Your task to perform on an android device: Go to internet settings Image 0: 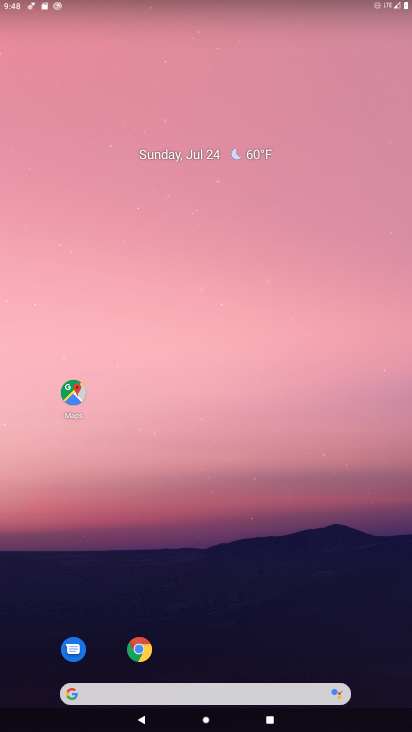
Step 0: drag from (343, 625) to (270, 75)
Your task to perform on an android device: Go to internet settings Image 1: 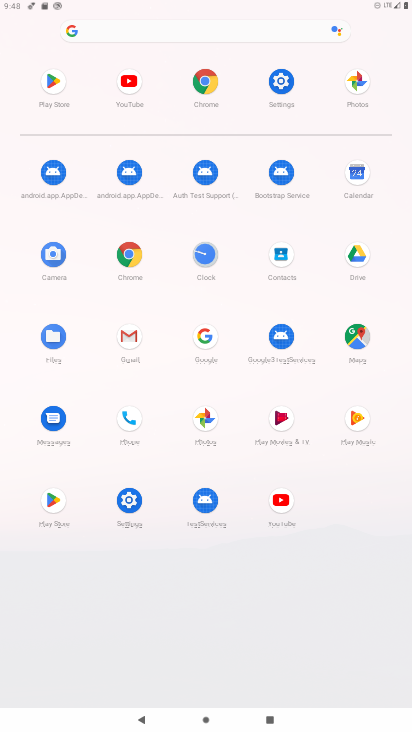
Step 1: click (288, 86)
Your task to perform on an android device: Go to internet settings Image 2: 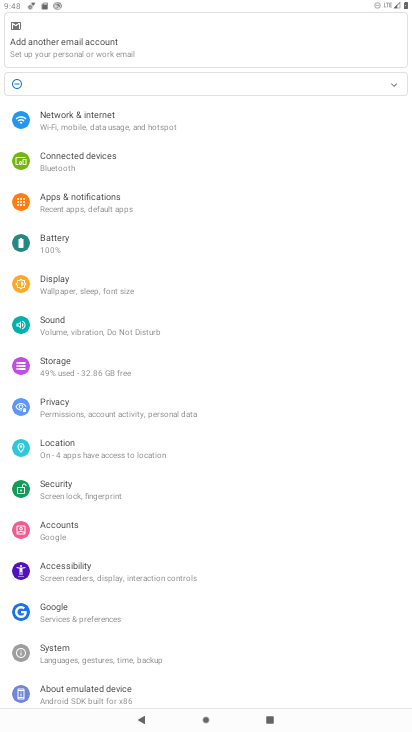
Step 2: click (69, 123)
Your task to perform on an android device: Go to internet settings Image 3: 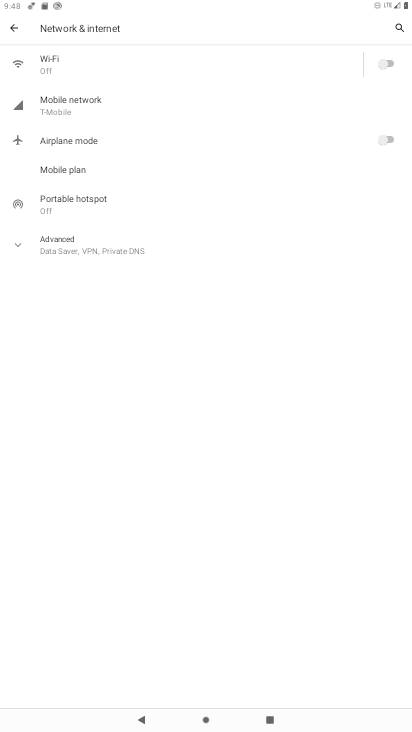
Step 3: click (107, 242)
Your task to perform on an android device: Go to internet settings Image 4: 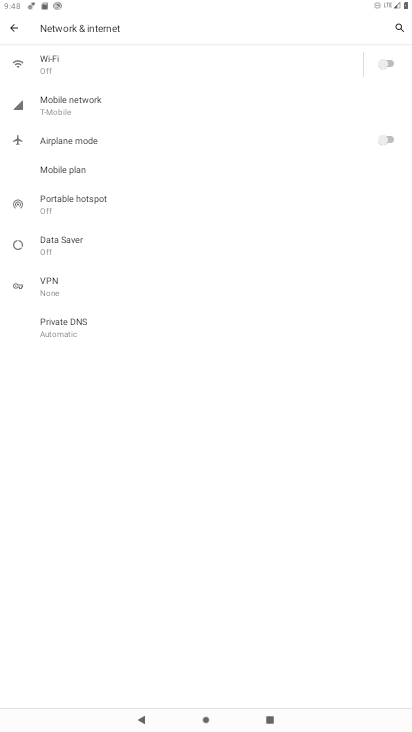
Step 4: task complete